Your task to perform on an android device: Open Yahoo.com Image 0: 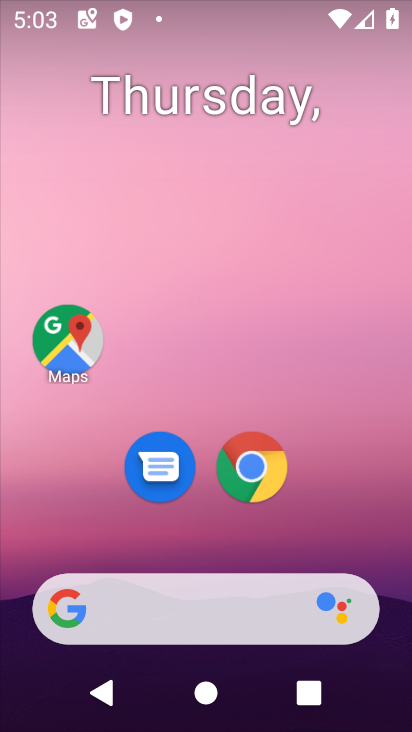
Step 0: click (267, 469)
Your task to perform on an android device: Open Yahoo.com Image 1: 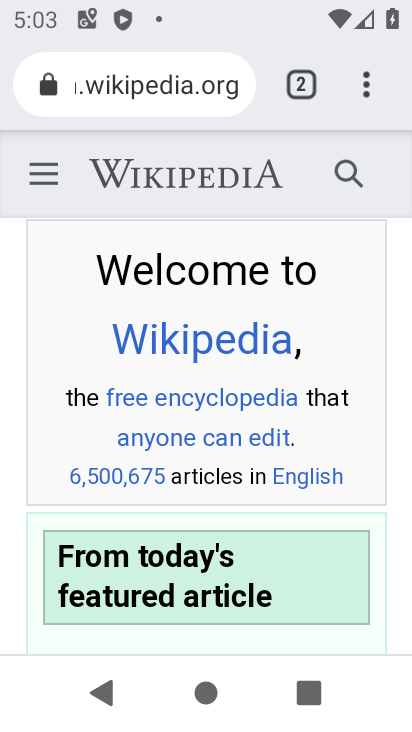
Step 1: click (306, 86)
Your task to perform on an android device: Open Yahoo.com Image 2: 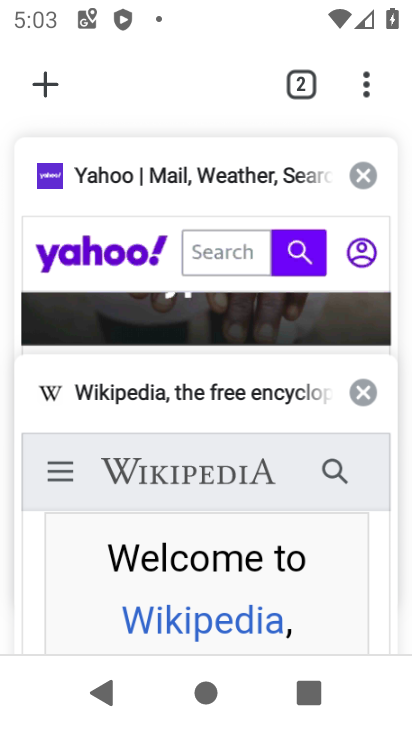
Step 2: click (229, 248)
Your task to perform on an android device: Open Yahoo.com Image 3: 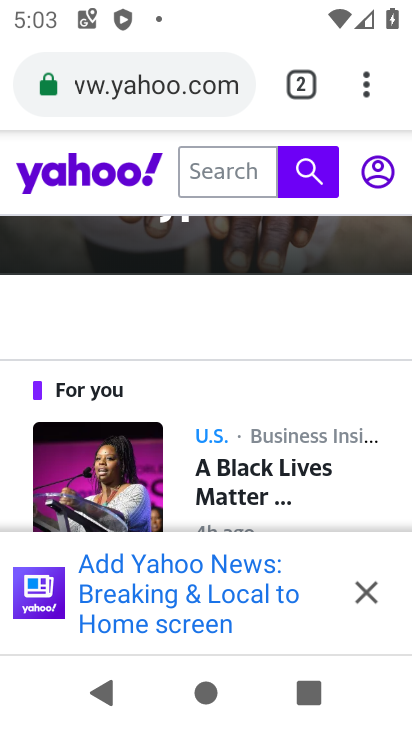
Step 3: task complete